Your task to perform on an android device: toggle pop-ups in chrome Image 0: 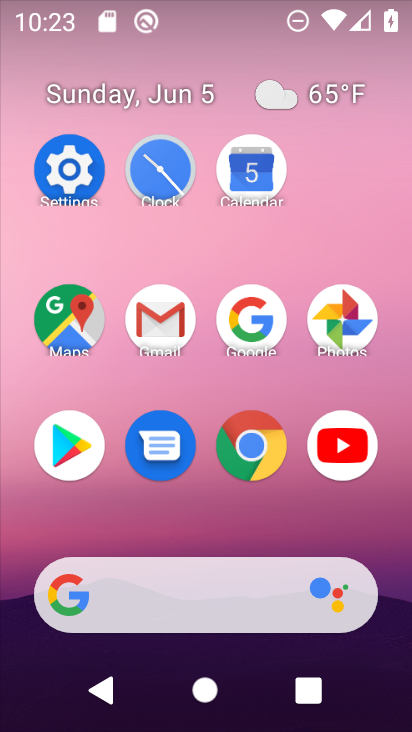
Step 0: click (239, 435)
Your task to perform on an android device: toggle pop-ups in chrome Image 1: 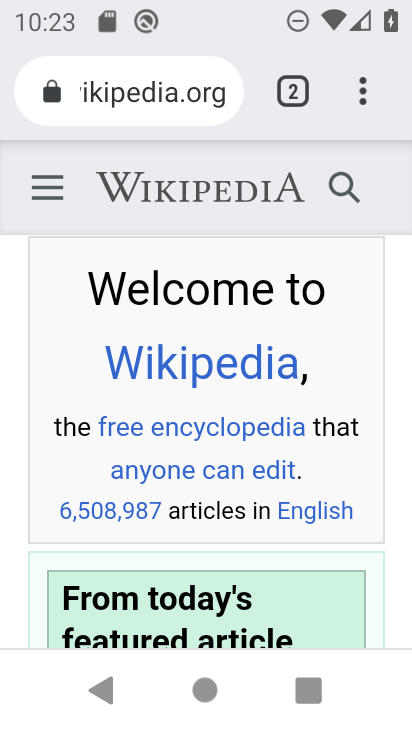
Step 1: click (362, 72)
Your task to perform on an android device: toggle pop-ups in chrome Image 2: 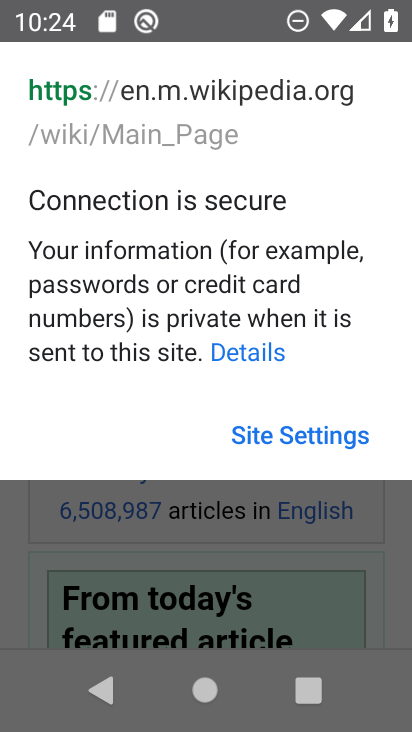
Step 2: click (390, 544)
Your task to perform on an android device: toggle pop-ups in chrome Image 3: 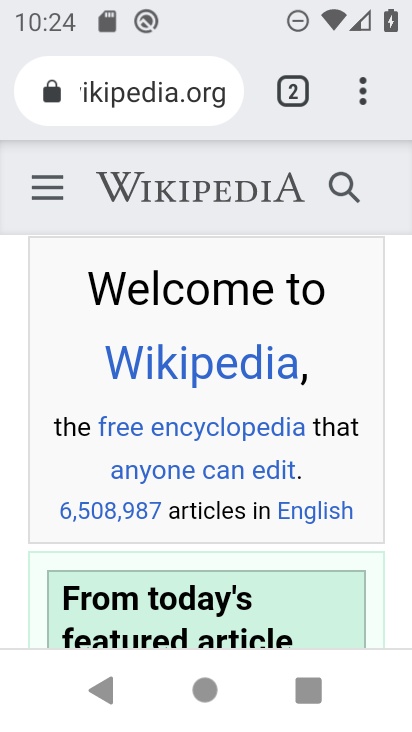
Step 3: click (373, 104)
Your task to perform on an android device: toggle pop-ups in chrome Image 4: 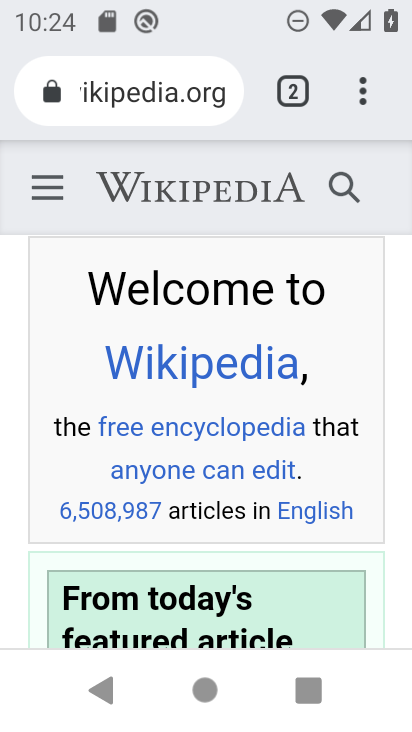
Step 4: click (358, 96)
Your task to perform on an android device: toggle pop-ups in chrome Image 5: 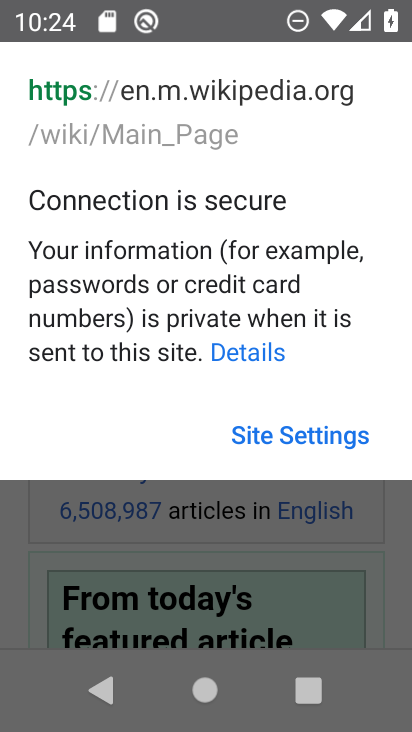
Step 5: click (405, 569)
Your task to perform on an android device: toggle pop-ups in chrome Image 6: 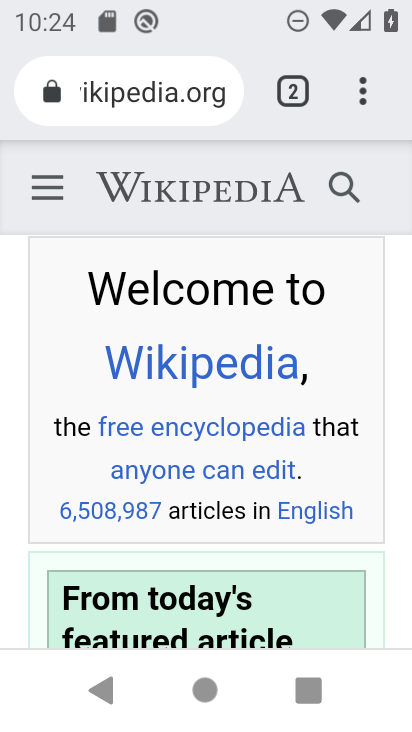
Step 6: click (369, 76)
Your task to perform on an android device: toggle pop-ups in chrome Image 7: 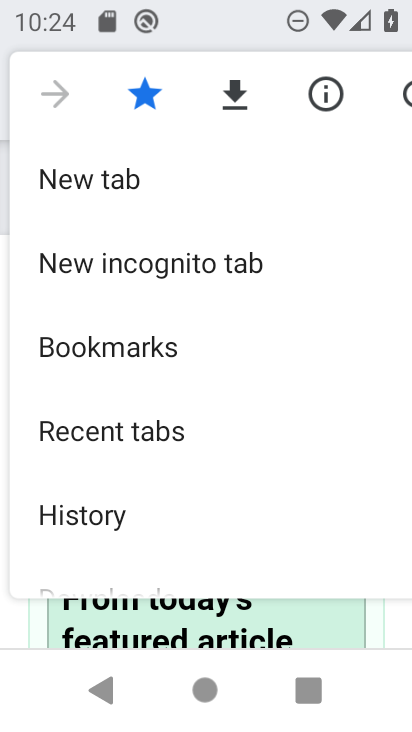
Step 7: drag from (274, 473) to (238, 58)
Your task to perform on an android device: toggle pop-ups in chrome Image 8: 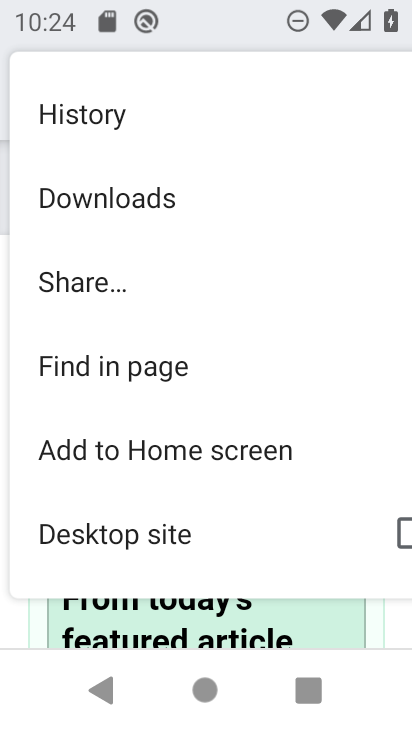
Step 8: drag from (178, 443) to (185, 112)
Your task to perform on an android device: toggle pop-ups in chrome Image 9: 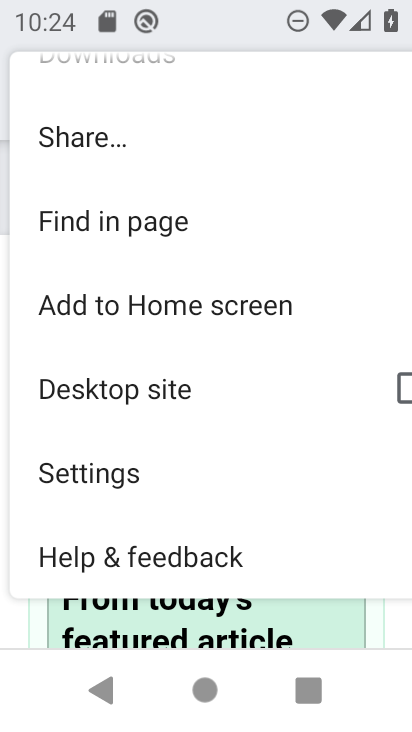
Step 9: drag from (295, 466) to (277, 261)
Your task to perform on an android device: toggle pop-ups in chrome Image 10: 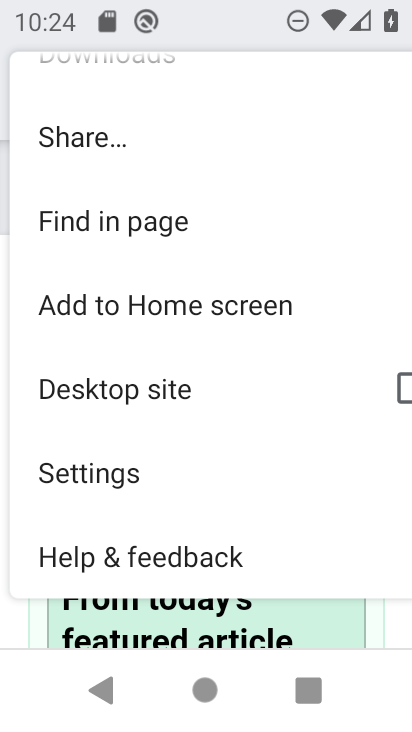
Step 10: click (171, 460)
Your task to perform on an android device: toggle pop-ups in chrome Image 11: 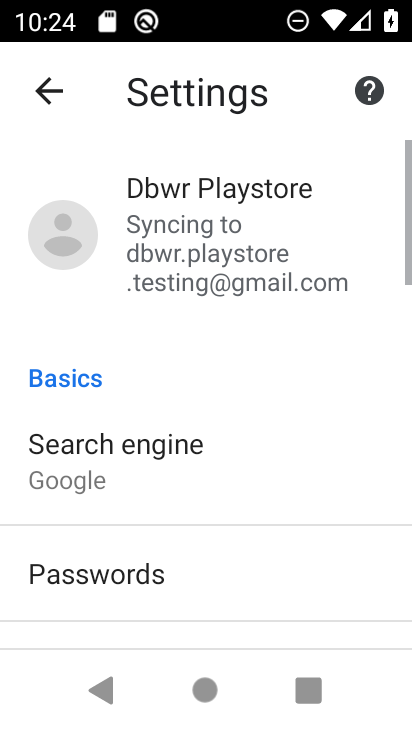
Step 11: drag from (227, 520) to (203, 139)
Your task to perform on an android device: toggle pop-ups in chrome Image 12: 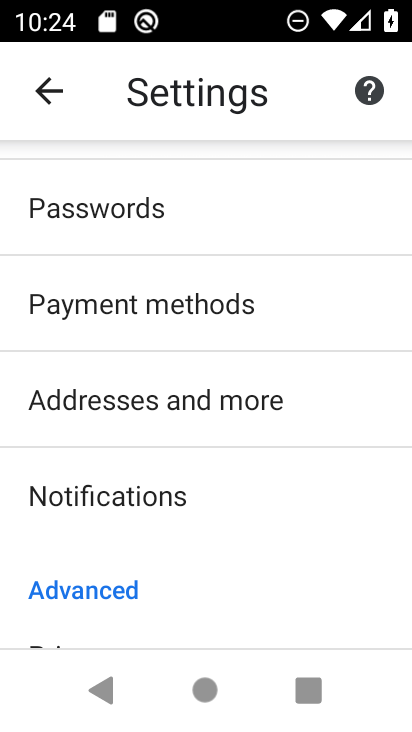
Step 12: drag from (220, 451) to (218, 243)
Your task to perform on an android device: toggle pop-ups in chrome Image 13: 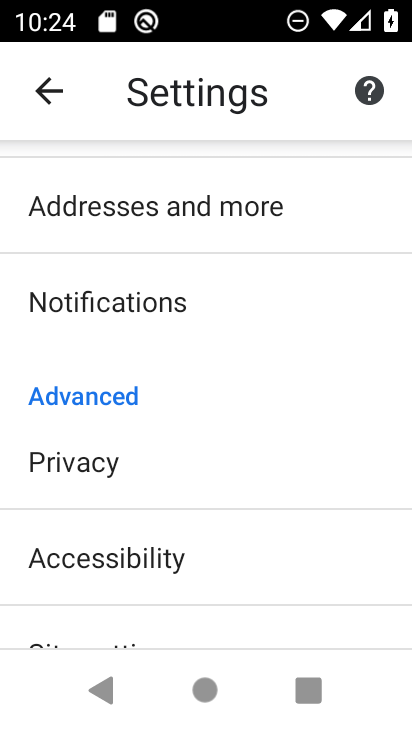
Step 13: drag from (227, 428) to (212, 224)
Your task to perform on an android device: toggle pop-ups in chrome Image 14: 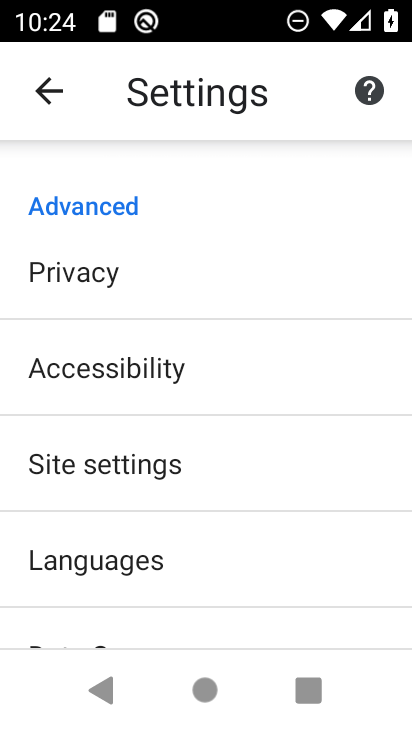
Step 14: drag from (266, 468) to (247, 253)
Your task to perform on an android device: toggle pop-ups in chrome Image 15: 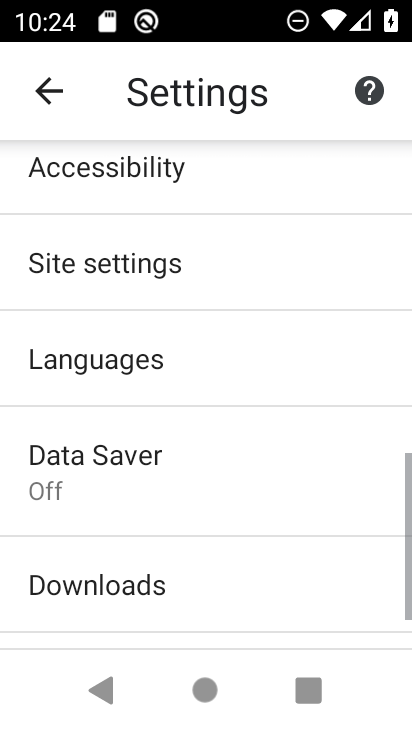
Step 15: click (223, 276)
Your task to perform on an android device: toggle pop-ups in chrome Image 16: 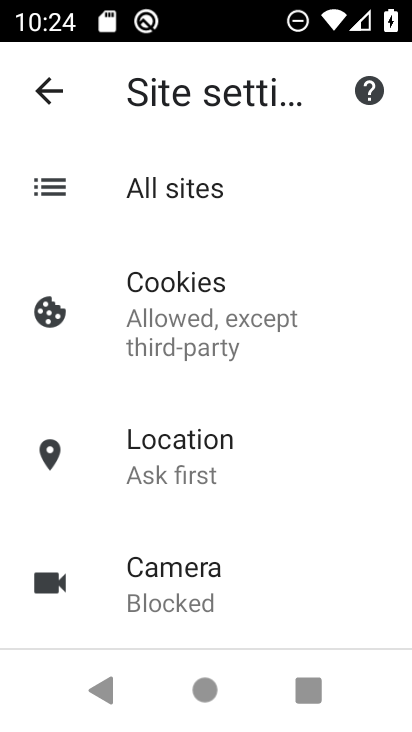
Step 16: drag from (276, 500) to (248, 191)
Your task to perform on an android device: toggle pop-ups in chrome Image 17: 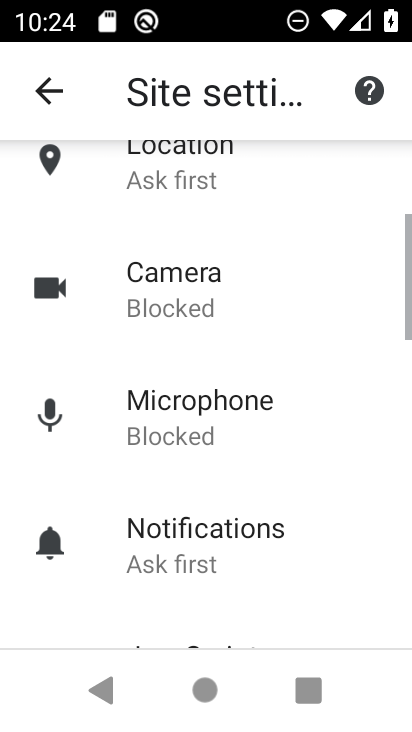
Step 17: drag from (316, 410) to (295, 183)
Your task to perform on an android device: toggle pop-ups in chrome Image 18: 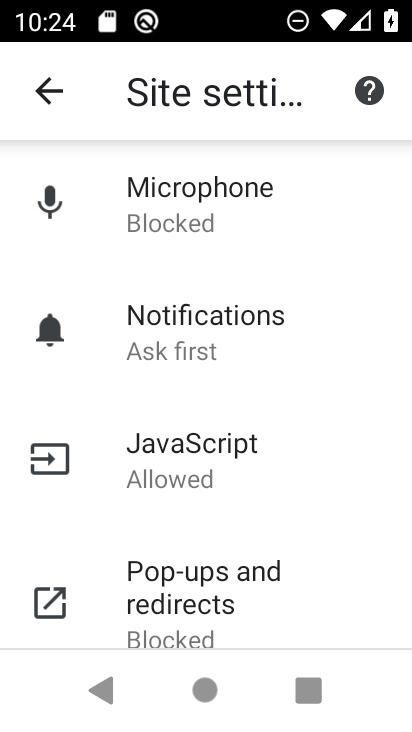
Step 18: click (239, 584)
Your task to perform on an android device: toggle pop-ups in chrome Image 19: 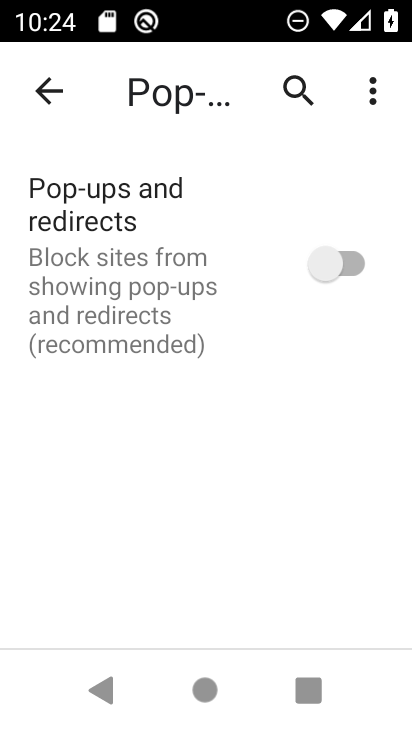
Step 19: click (324, 249)
Your task to perform on an android device: toggle pop-ups in chrome Image 20: 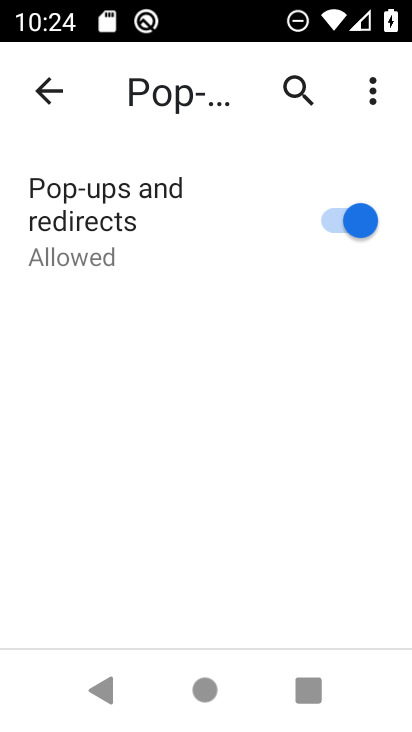
Step 20: task complete